Your task to perform on an android device: Open display settings Image 0: 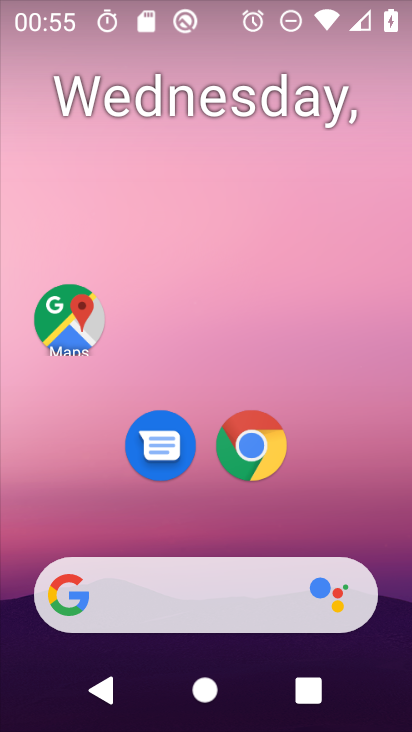
Step 0: drag from (326, 521) to (318, 0)
Your task to perform on an android device: Open display settings Image 1: 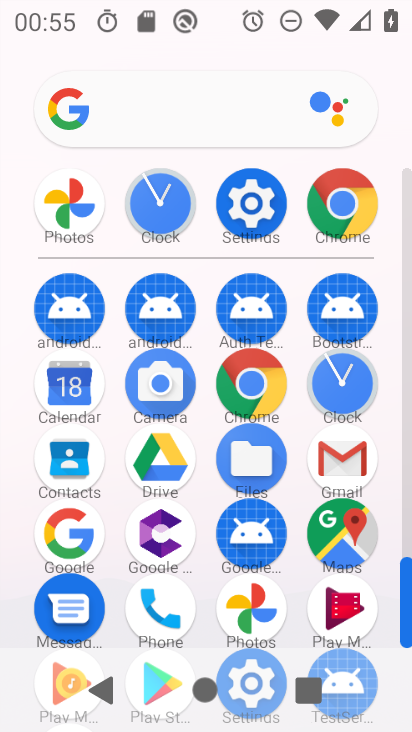
Step 1: click (247, 192)
Your task to perform on an android device: Open display settings Image 2: 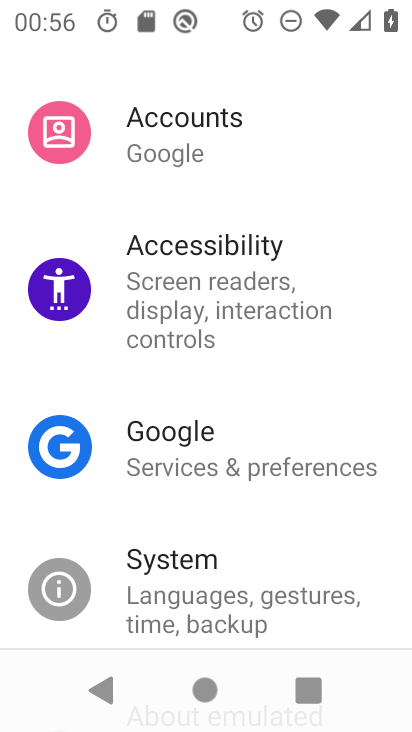
Step 2: drag from (223, 245) to (239, 483)
Your task to perform on an android device: Open display settings Image 3: 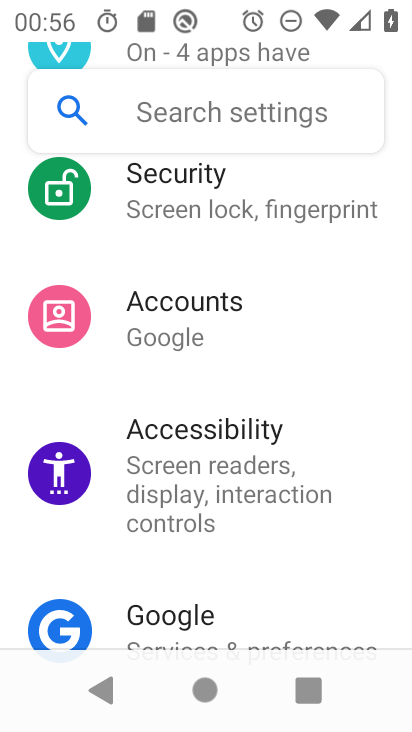
Step 3: drag from (252, 291) to (271, 581)
Your task to perform on an android device: Open display settings Image 4: 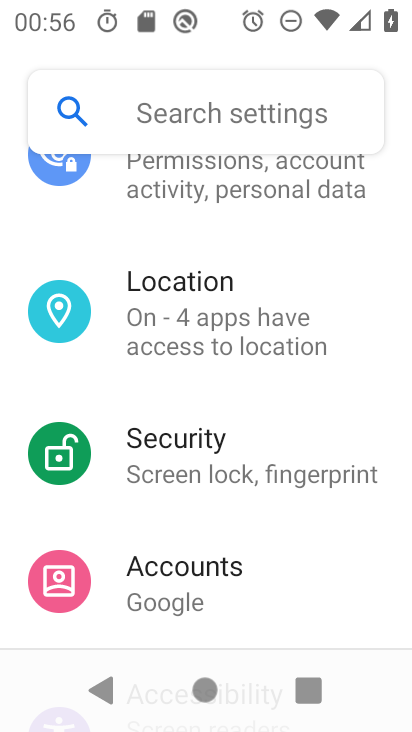
Step 4: drag from (217, 264) to (229, 496)
Your task to perform on an android device: Open display settings Image 5: 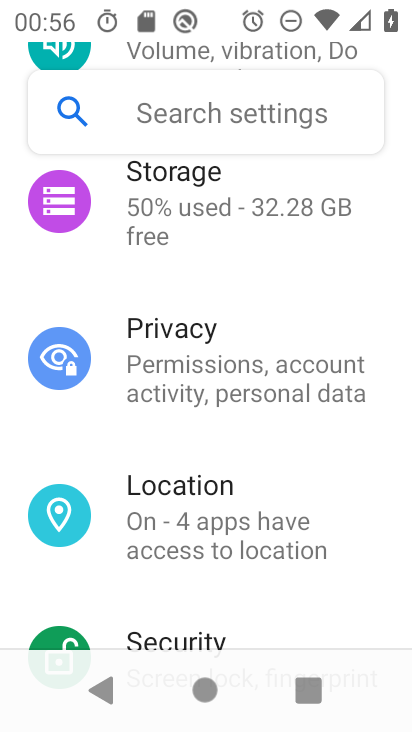
Step 5: drag from (270, 164) to (252, 389)
Your task to perform on an android device: Open display settings Image 6: 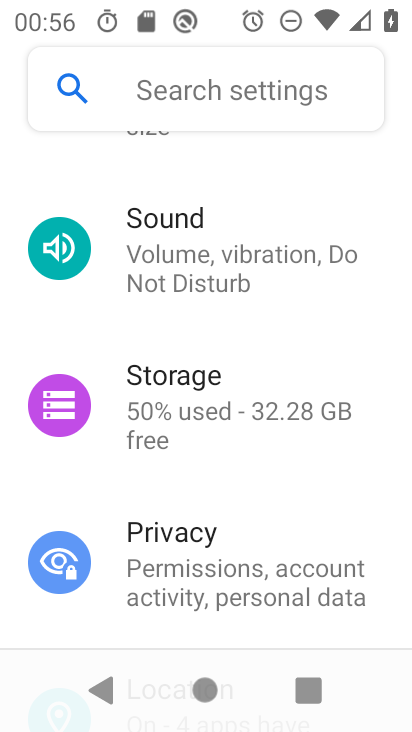
Step 6: drag from (220, 245) to (243, 448)
Your task to perform on an android device: Open display settings Image 7: 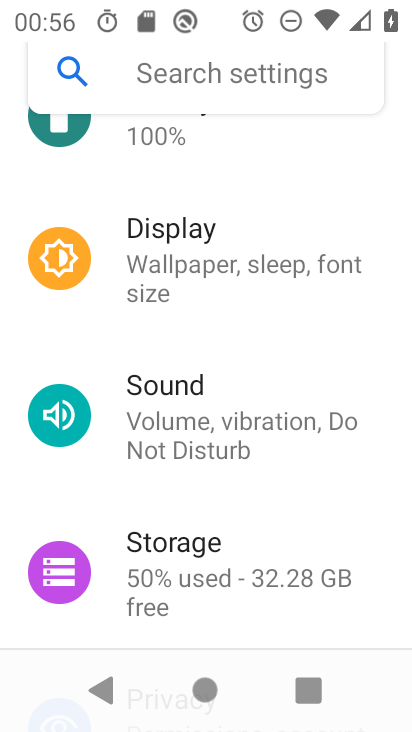
Step 7: click (267, 253)
Your task to perform on an android device: Open display settings Image 8: 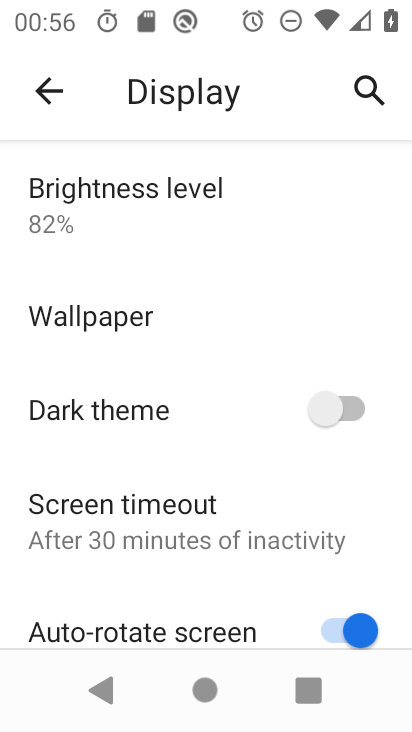
Step 8: task complete